Your task to perform on an android device: Open calendar and show me the third week of next month Image 0: 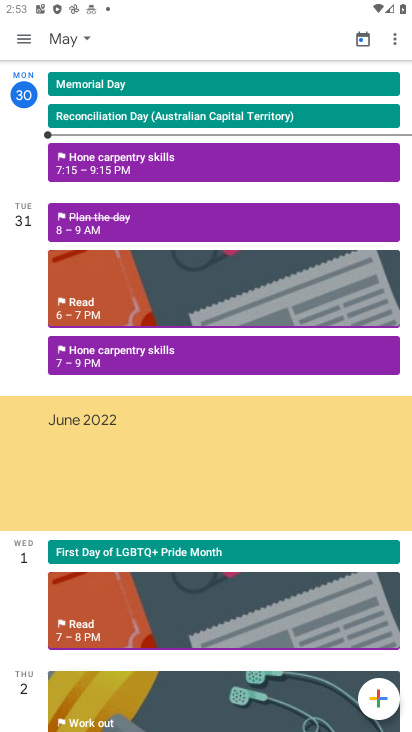
Step 0: click (67, 51)
Your task to perform on an android device: Open calendar and show me the third week of next month Image 1: 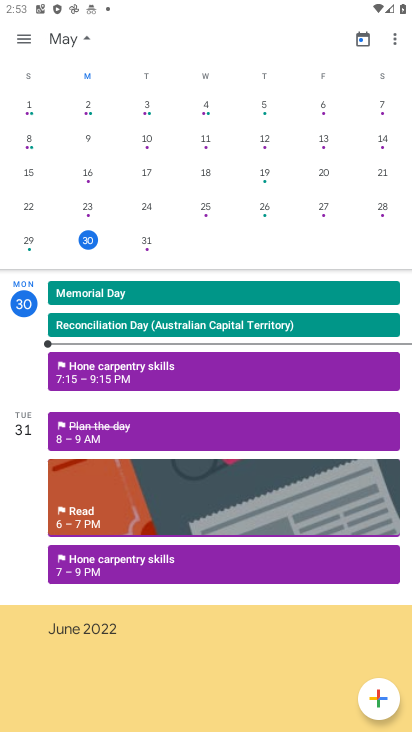
Step 1: task complete